Your task to perform on an android device: turn off location history Image 0: 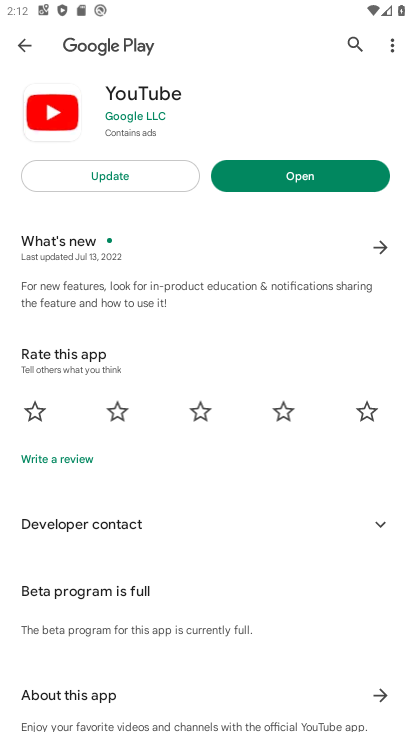
Step 0: press home button
Your task to perform on an android device: turn off location history Image 1: 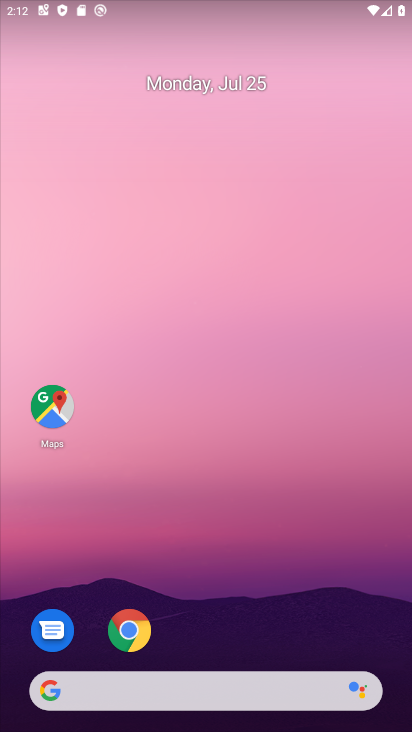
Step 1: drag from (258, 654) to (265, 209)
Your task to perform on an android device: turn off location history Image 2: 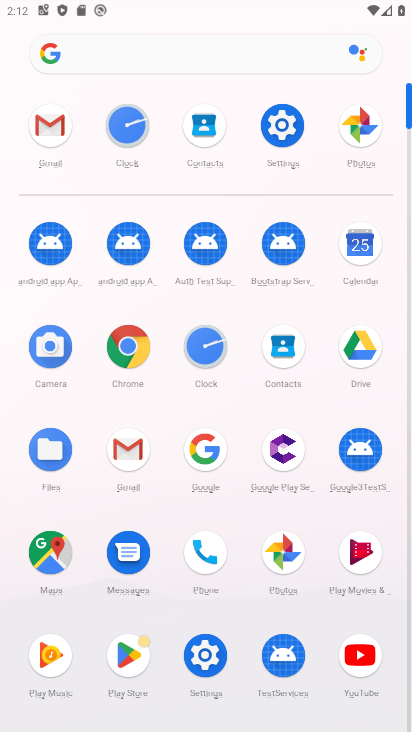
Step 2: click (265, 124)
Your task to perform on an android device: turn off location history Image 3: 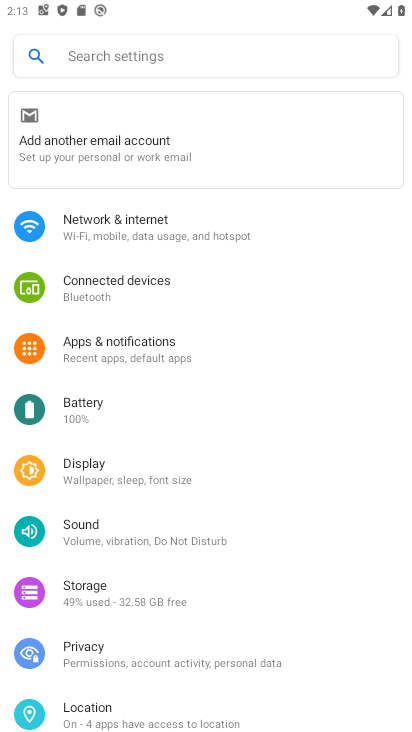
Step 3: click (189, 698)
Your task to perform on an android device: turn off location history Image 4: 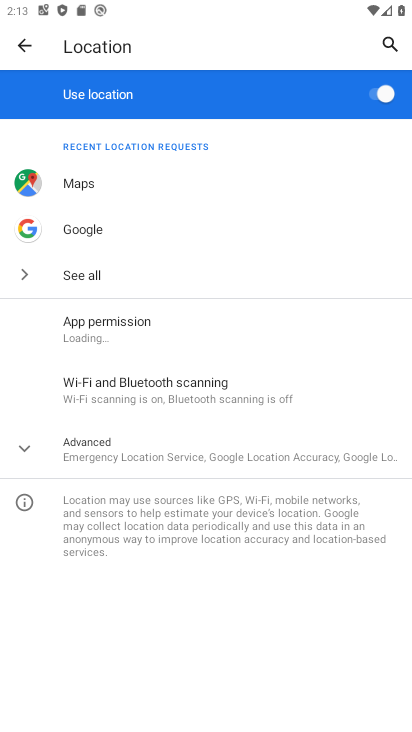
Step 4: click (185, 440)
Your task to perform on an android device: turn off location history Image 5: 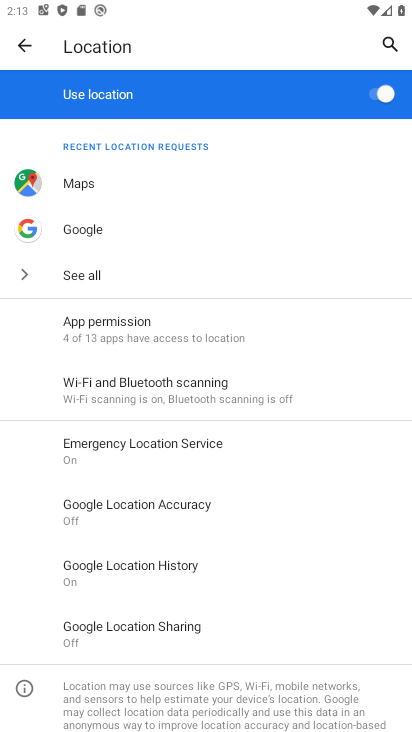
Step 5: click (188, 563)
Your task to perform on an android device: turn off location history Image 6: 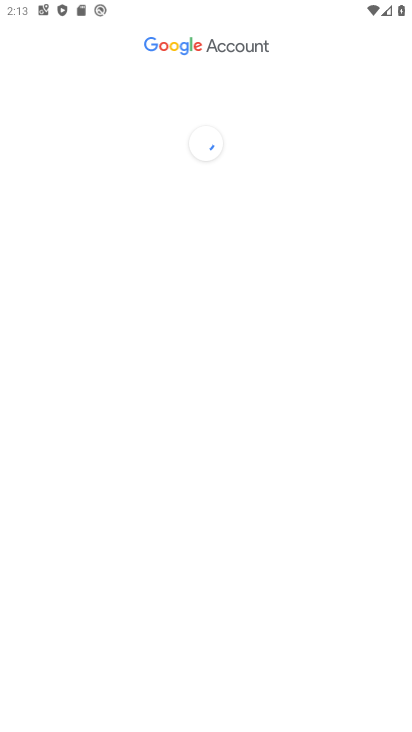
Step 6: task complete